Your task to perform on an android device: Go to notification settings Image 0: 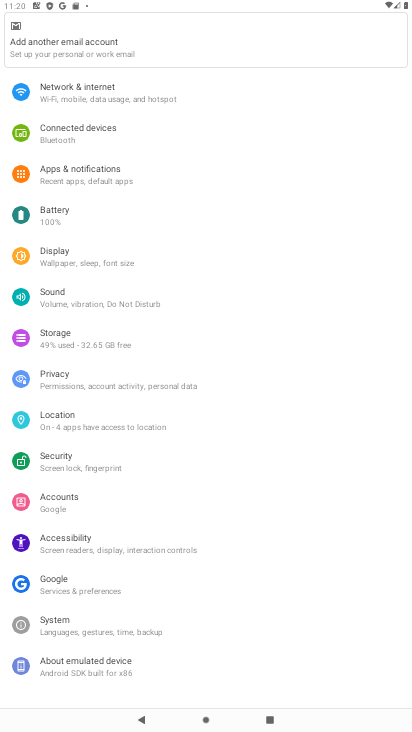
Step 0: click (120, 168)
Your task to perform on an android device: Go to notification settings Image 1: 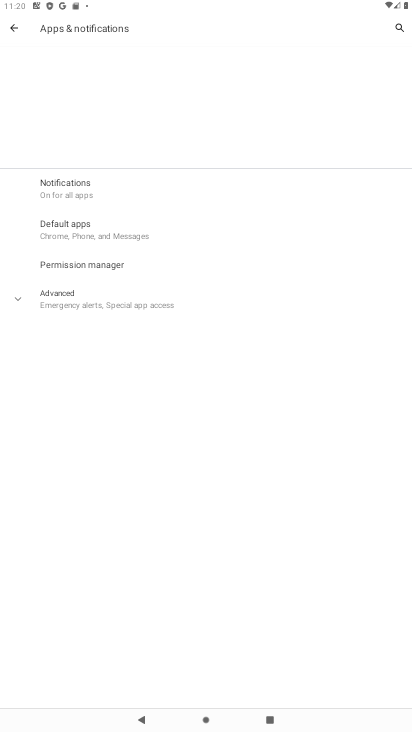
Step 1: click (68, 181)
Your task to perform on an android device: Go to notification settings Image 2: 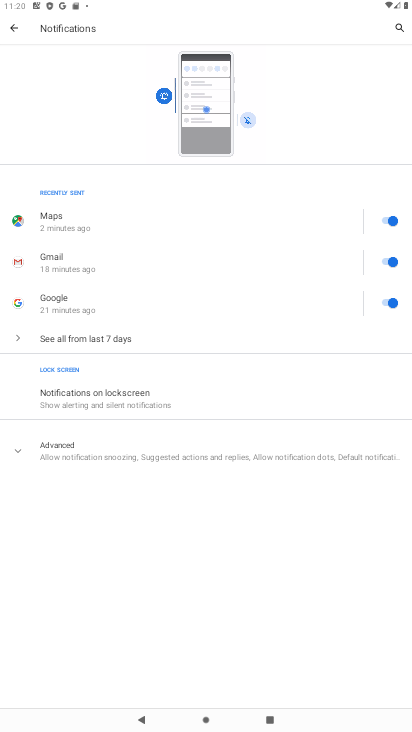
Step 2: task complete